Your task to perform on an android device: Open eBay Image 0: 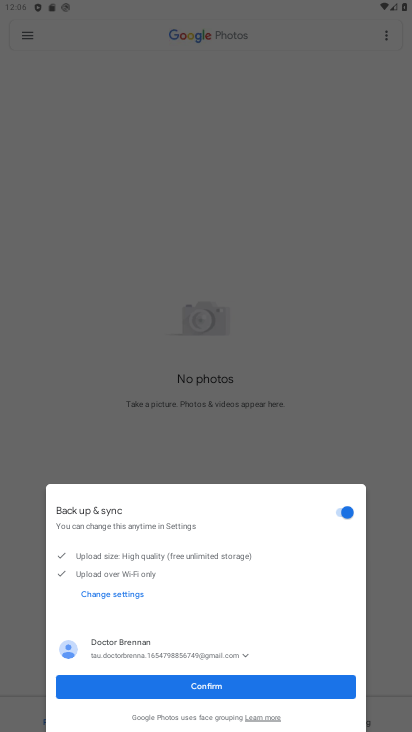
Step 0: press home button
Your task to perform on an android device: Open eBay Image 1: 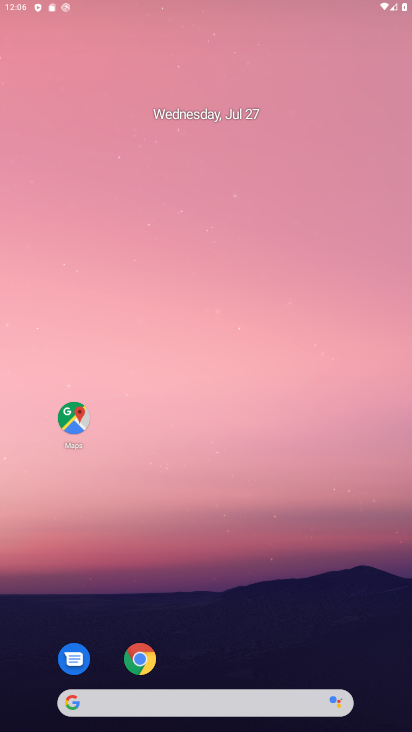
Step 1: drag from (263, 530) to (131, 7)
Your task to perform on an android device: Open eBay Image 2: 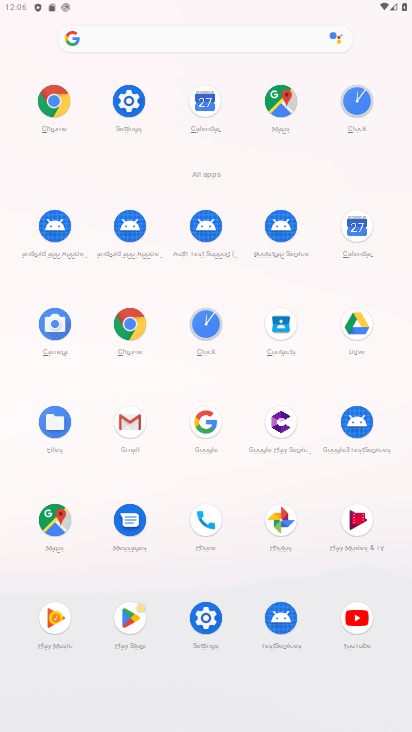
Step 2: click (46, 111)
Your task to perform on an android device: Open eBay Image 3: 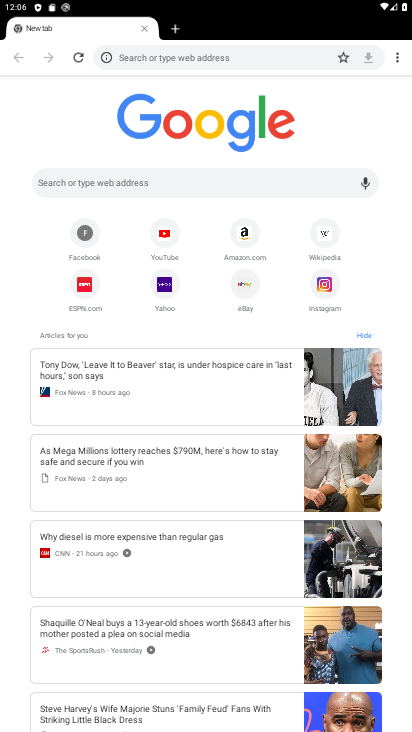
Step 3: click (254, 292)
Your task to perform on an android device: Open eBay Image 4: 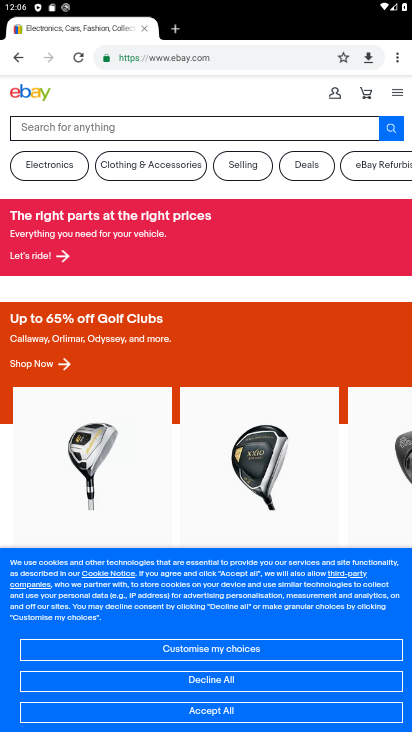
Step 4: task complete